Your task to perform on an android device: Go to accessibility settings Image 0: 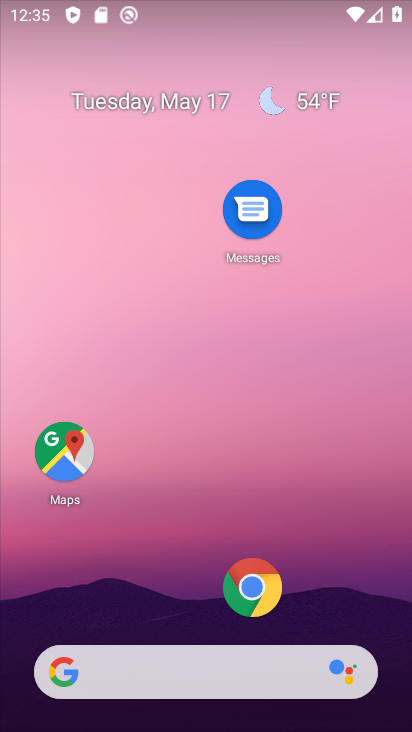
Step 0: drag from (170, 598) to (220, 6)
Your task to perform on an android device: Go to accessibility settings Image 1: 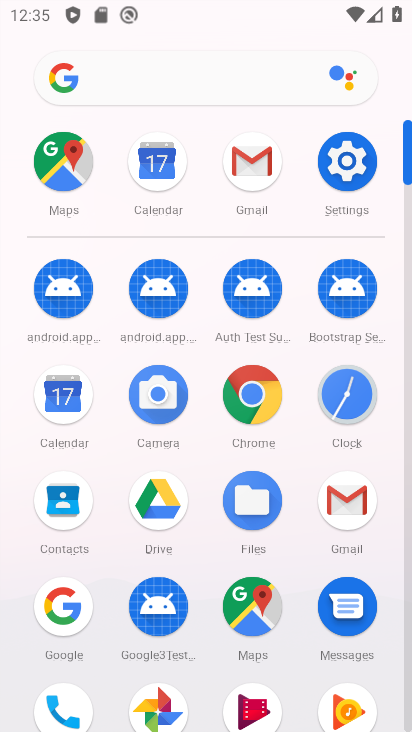
Step 1: click (356, 175)
Your task to perform on an android device: Go to accessibility settings Image 2: 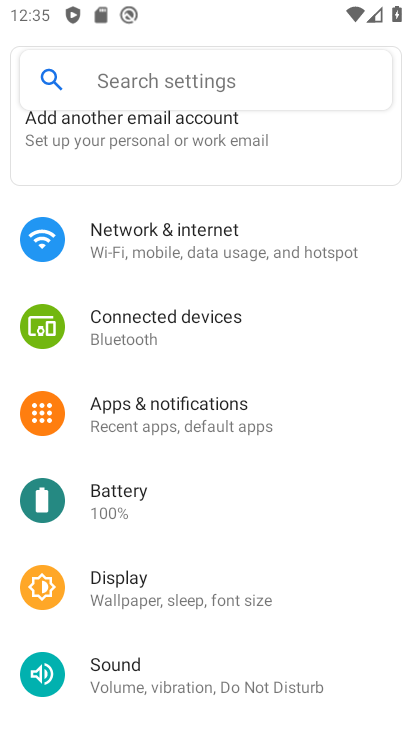
Step 2: drag from (208, 555) to (272, 134)
Your task to perform on an android device: Go to accessibility settings Image 3: 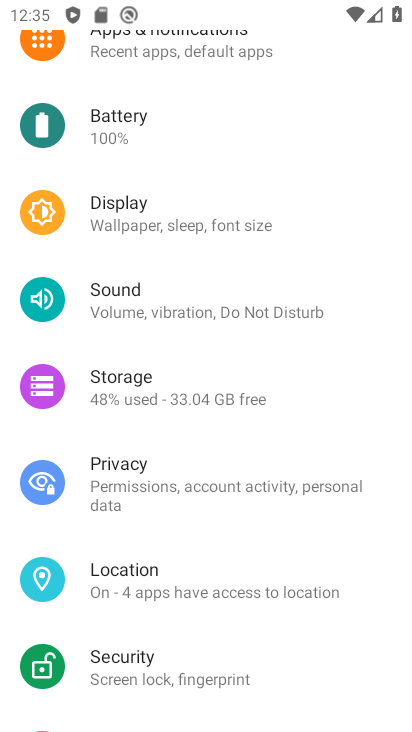
Step 3: drag from (213, 587) to (285, 233)
Your task to perform on an android device: Go to accessibility settings Image 4: 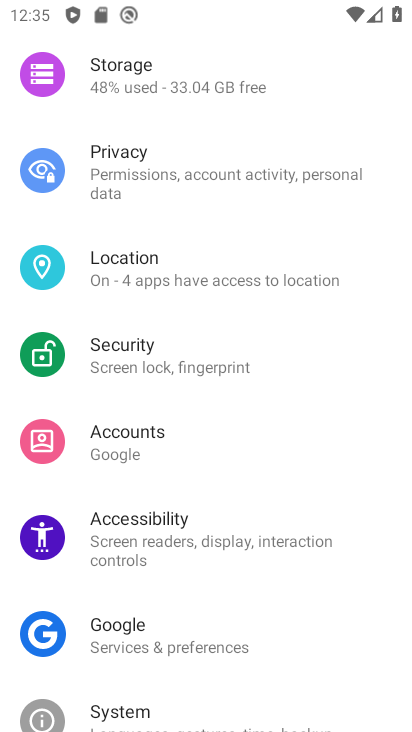
Step 4: click (199, 547)
Your task to perform on an android device: Go to accessibility settings Image 5: 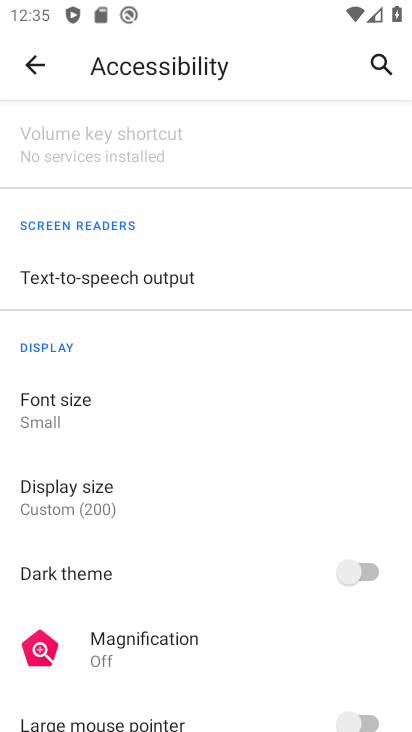
Step 5: task complete